Your task to perform on an android device: open the mobile data screen to see how much data has been used Image 0: 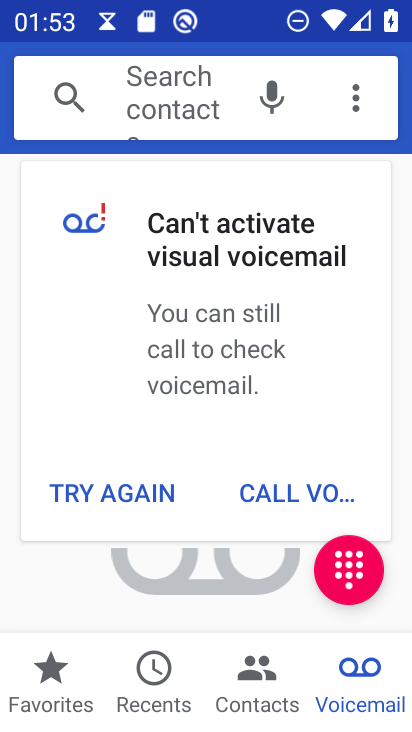
Step 0: press home button
Your task to perform on an android device: open the mobile data screen to see how much data has been used Image 1: 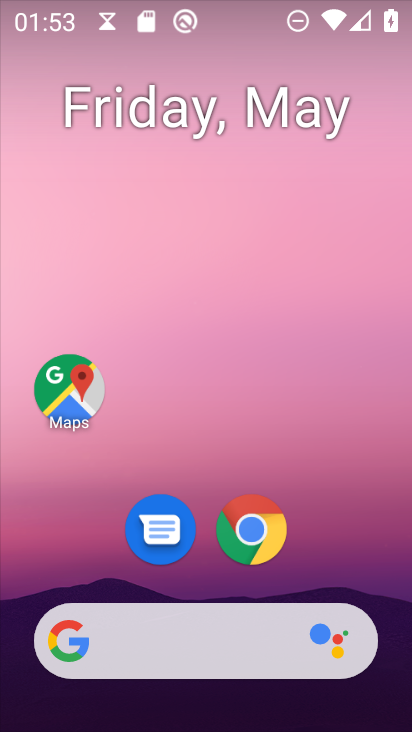
Step 1: drag from (271, 519) to (244, 279)
Your task to perform on an android device: open the mobile data screen to see how much data has been used Image 2: 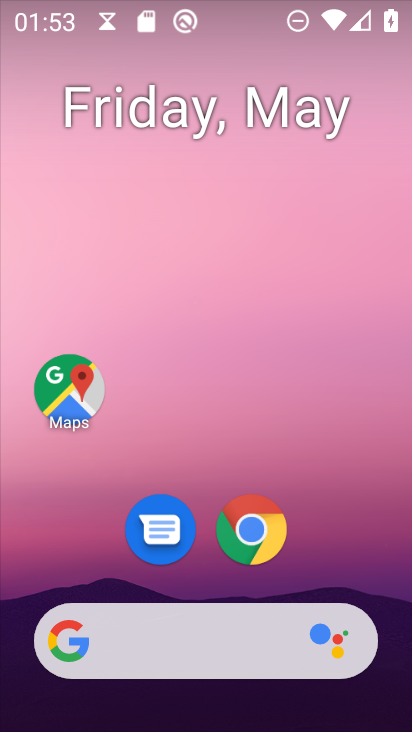
Step 2: drag from (216, 477) to (189, 262)
Your task to perform on an android device: open the mobile data screen to see how much data has been used Image 3: 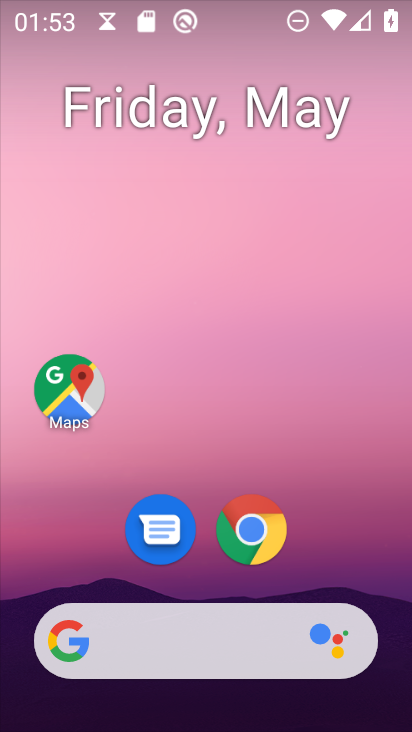
Step 3: drag from (225, 649) to (211, 323)
Your task to perform on an android device: open the mobile data screen to see how much data has been used Image 4: 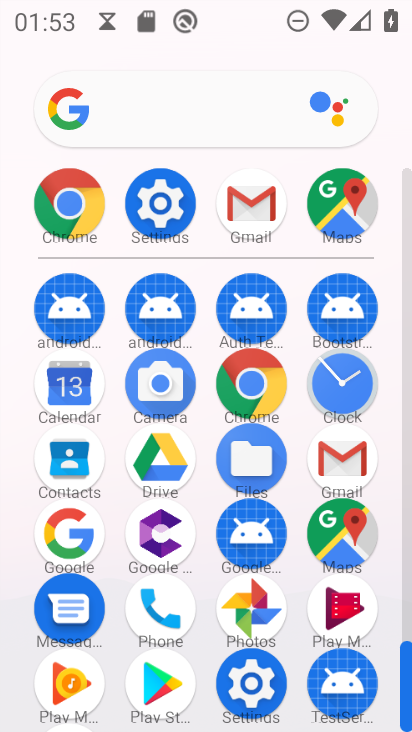
Step 4: click (141, 202)
Your task to perform on an android device: open the mobile data screen to see how much data has been used Image 5: 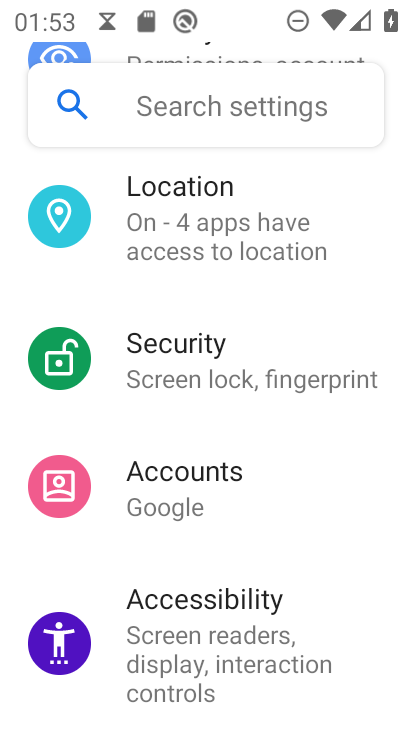
Step 5: drag from (198, 265) to (203, 639)
Your task to perform on an android device: open the mobile data screen to see how much data has been used Image 6: 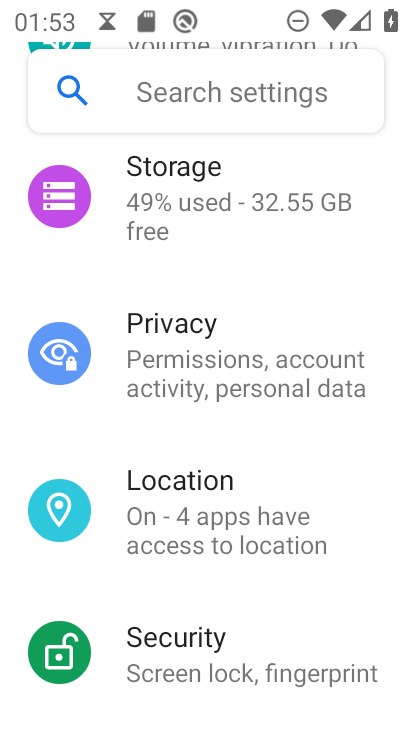
Step 6: drag from (175, 203) to (239, 679)
Your task to perform on an android device: open the mobile data screen to see how much data has been used Image 7: 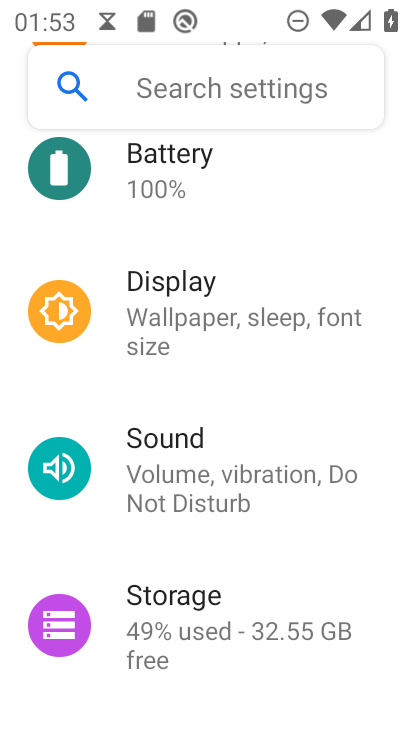
Step 7: drag from (203, 213) to (247, 652)
Your task to perform on an android device: open the mobile data screen to see how much data has been used Image 8: 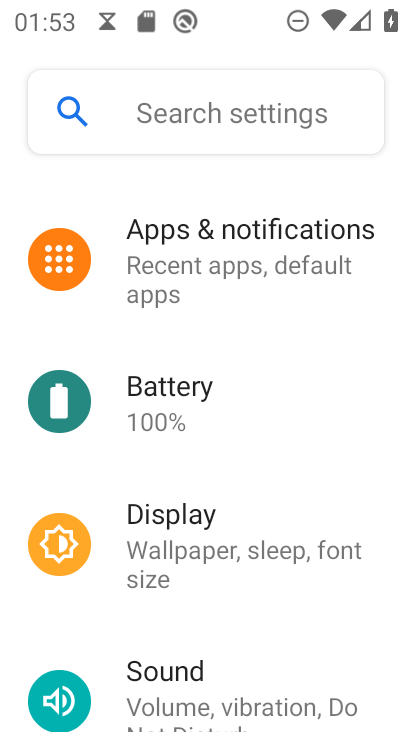
Step 8: drag from (174, 238) to (185, 698)
Your task to perform on an android device: open the mobile data screen to see how much data has been used Image 9: 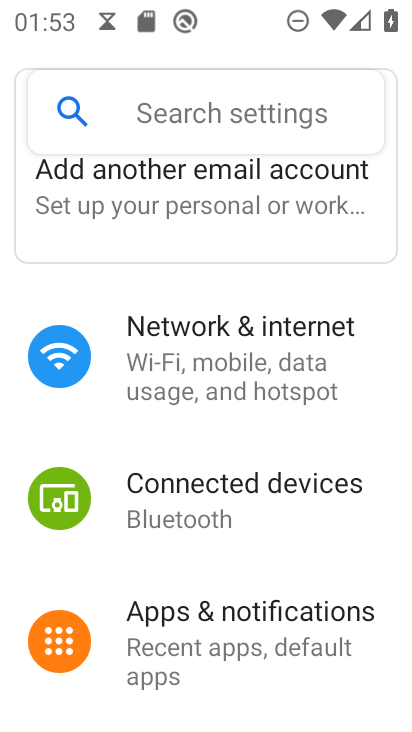
Step 9: click (182, 387)
Your task to perform on an android device: open the mobile data screen to see how much data has been used Image 10: 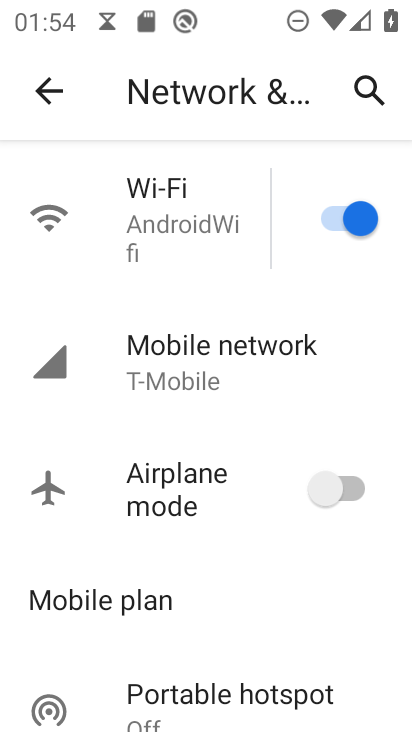
Step 10: click (129, 358)
Your task to perform on an android device: open the mobile data screen to see how much data has been used Image 11: 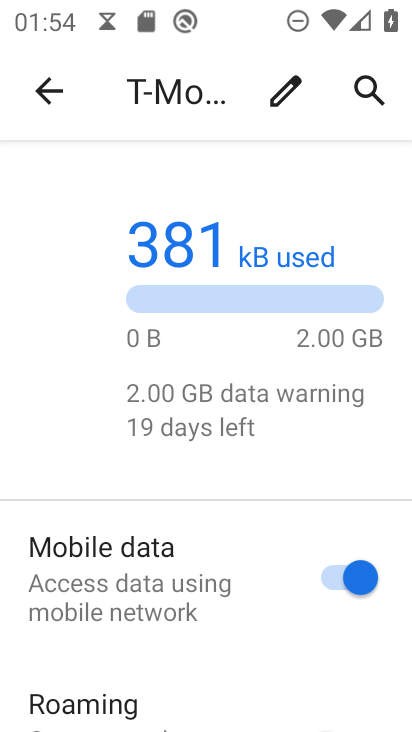
Step 11: task complete